Your task to perform on an android device: check storage Image 0: 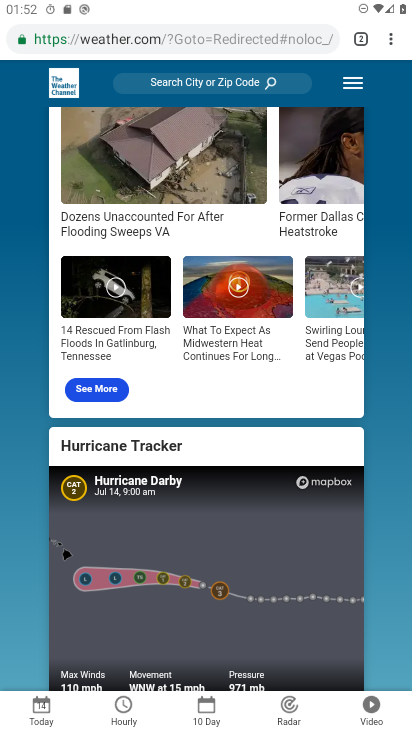
Step 0: press home button
Your task to perform on an android device: check storage Image 1: 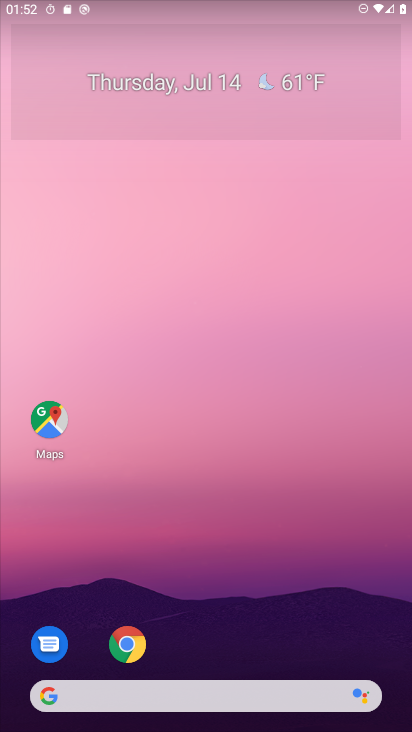
Step 1: drag from (274, 606) to (279, 29)
Your task to perform on an android device: check storage Image 2: 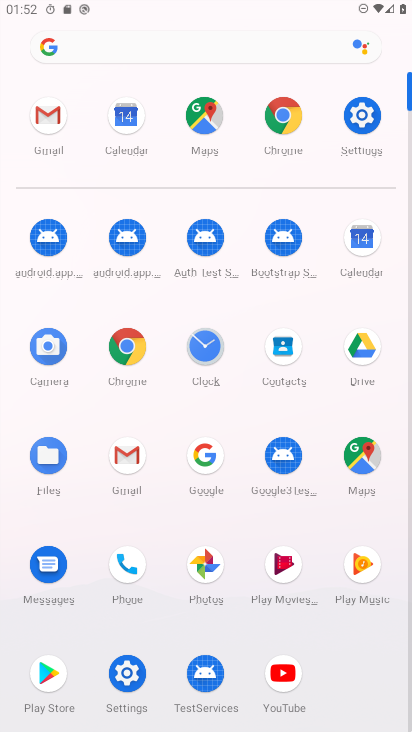
Step 2: click (368, 111)
Your task to perform on an android device: check storage Image 3: 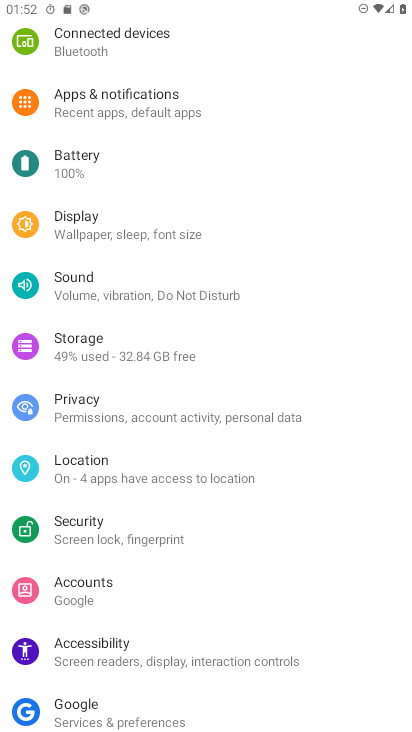
Step 3: click (131, 351)
Your task to perform on an android device: check storage Image 4: 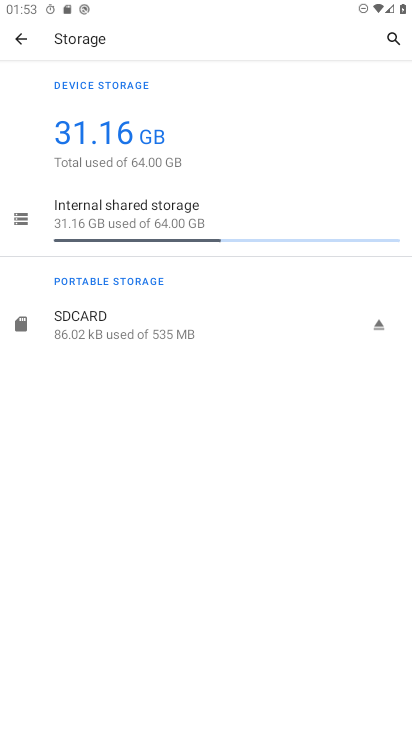
Step 4: task complete